Your task to perform on an android device: Open Google Chrome Image 0: 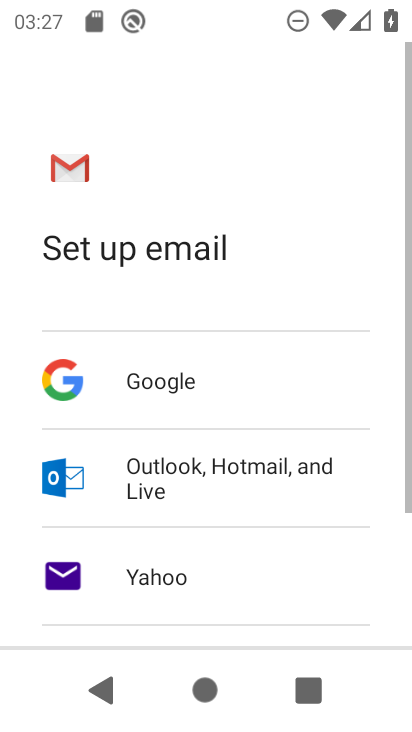
Step 0: drag from (181, 569) to (273, 97)
Your task to perform on an android device: Open Google Chrome Image 1: 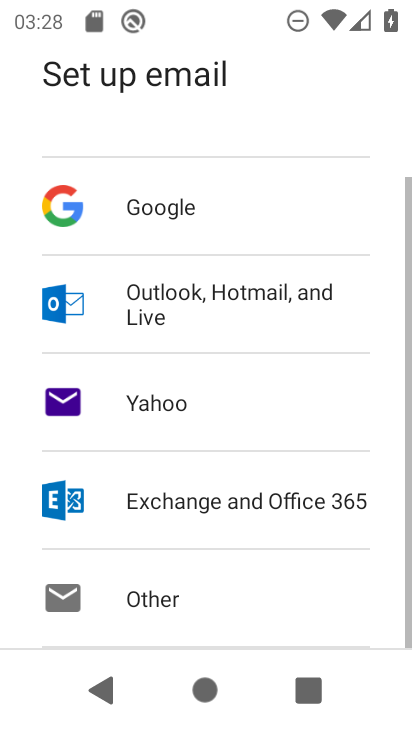
Step 1: press home button
Your task to perform on an android device: Open Google Chrome Image 2: 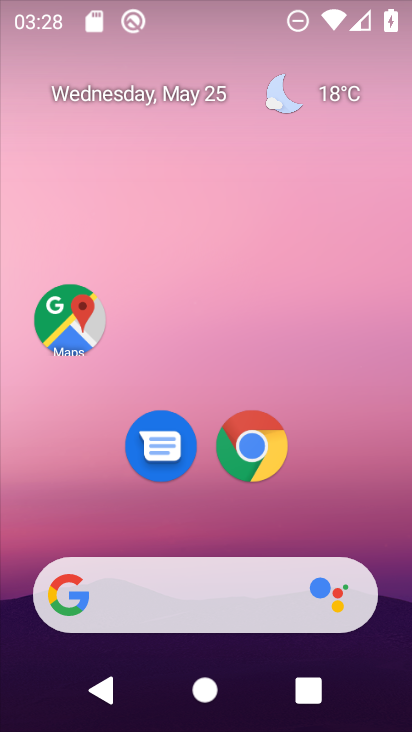
Step 2: drag from (178, 586) to (183, 224)
Your task to perform on an android device: Open Google Chrome Image 3: 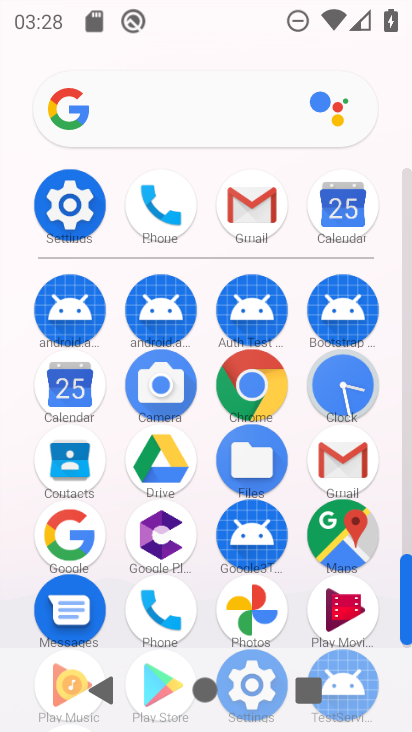
Step 3: click (250, 389)
Your task to perform on an android device: Open Google Chrome Image 4: 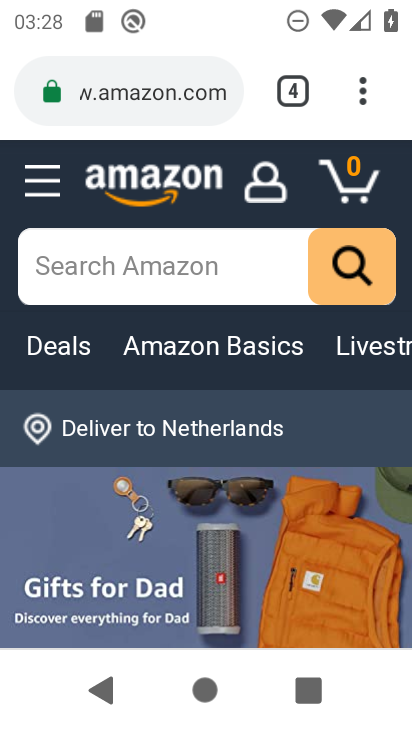
Step 4: task complete